Your task to perform on an android device: Open ESPN.com Image 0: 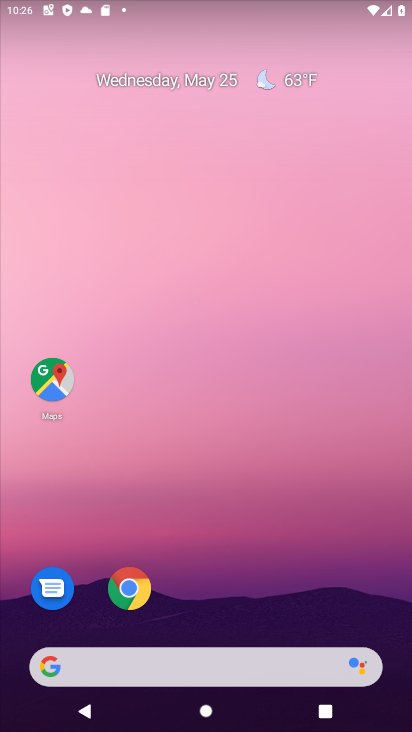
Step 0: click (117, 567)
Your task to perform on an android device: Open ESPN.com Image 1: 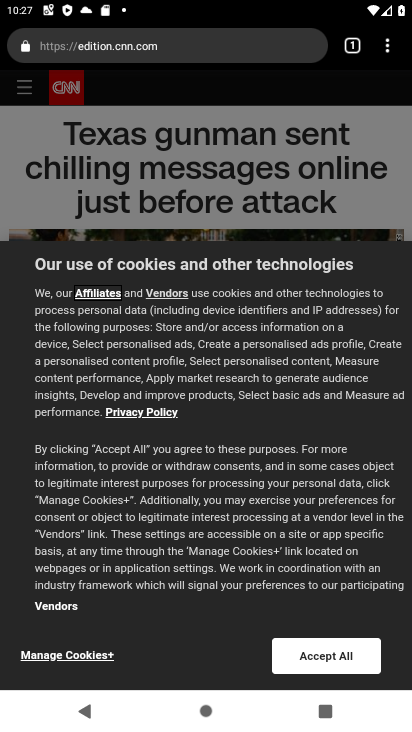
Step 1: click (365, 43)
Your task to perform on an android device: Open ESPN.com Image 2: 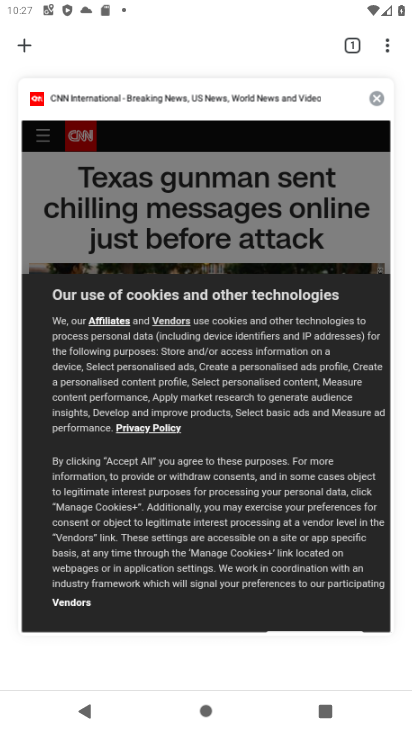
Step 2: click (376, 100)
Your task to perform on an android device: Open ESPN.com Image 3: 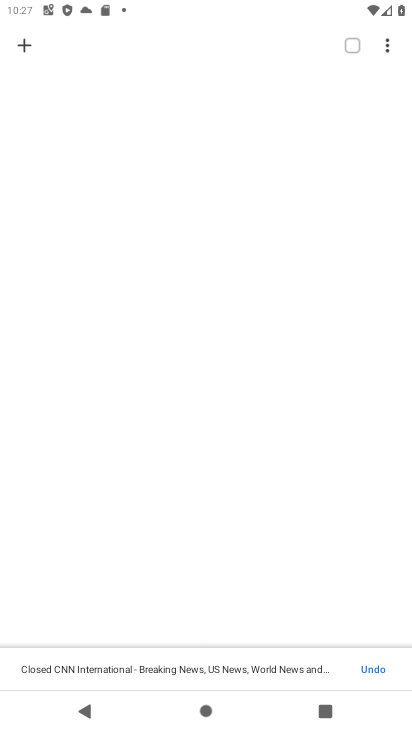
Step 3: click (28, 39)
Your task to perform on an android device: Open ESPN.com Image 4: 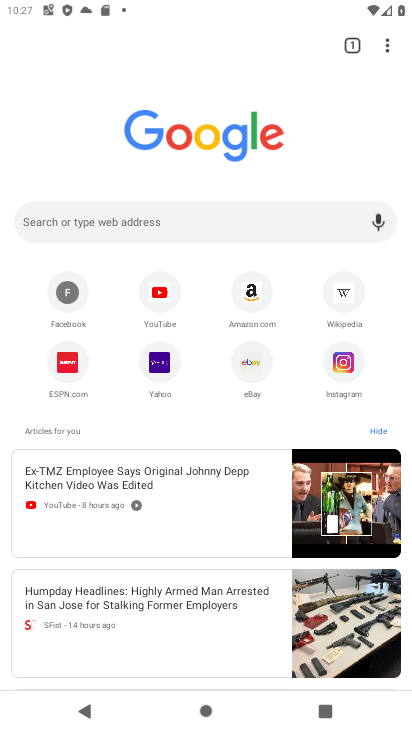
Step 4: click (60, 364)
Your task to perform on an android device: Open ESPN.com Image 5: 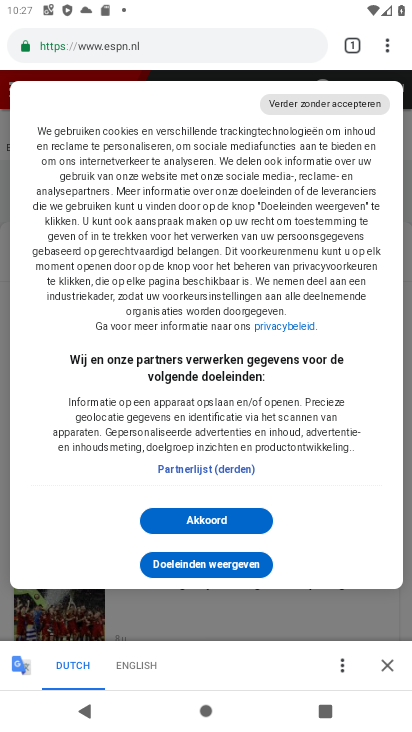
Step 5: task complete